Your task to perform on an android device: Go to CNN.com Image 0: 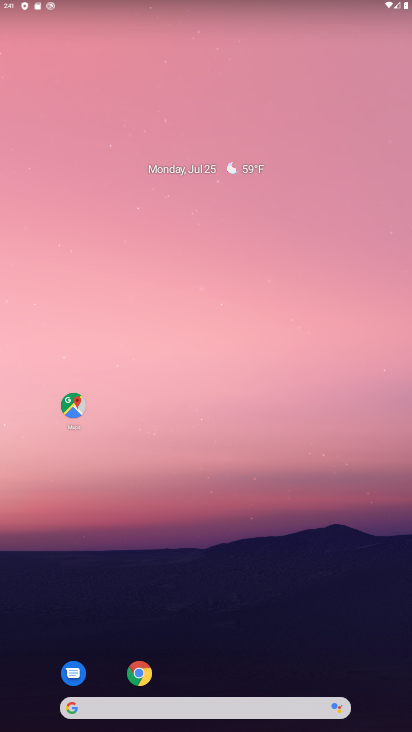
Step 0: click (146, 670)
Your task to perform on an android device: Go to CNN.com Image 1: 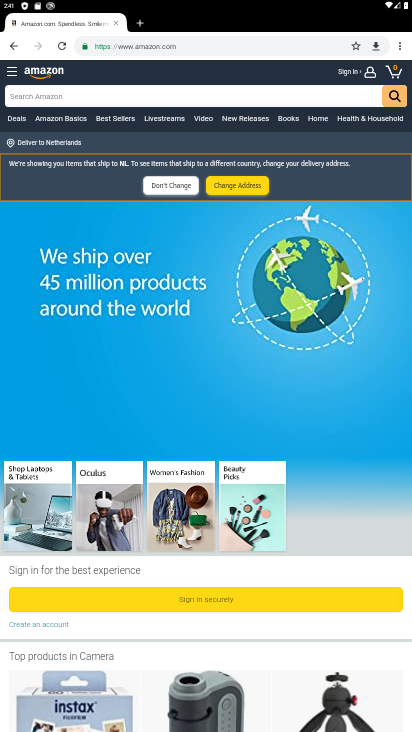
Step 1: click (156, 37)
Your task to perform on an android device: Go to CNN.com Image 2: 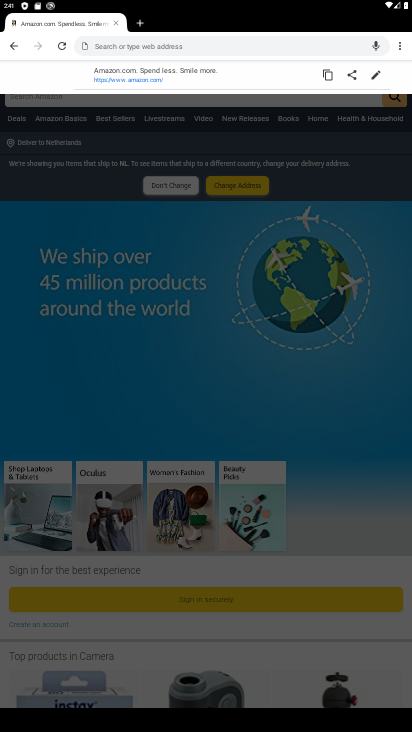
Step 2: type "www.cnn.com"
Your task to perform on an android device: Go to CNN.com Image 3: 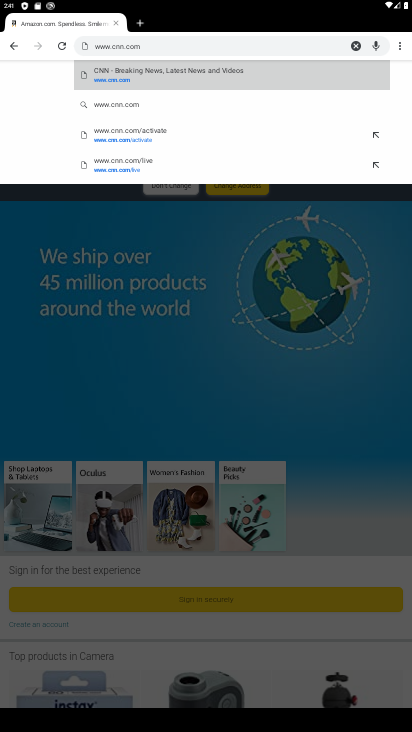
Step 3: click (129, 70)
Your task to perform on an android device: Go to CNN.com Image 4: 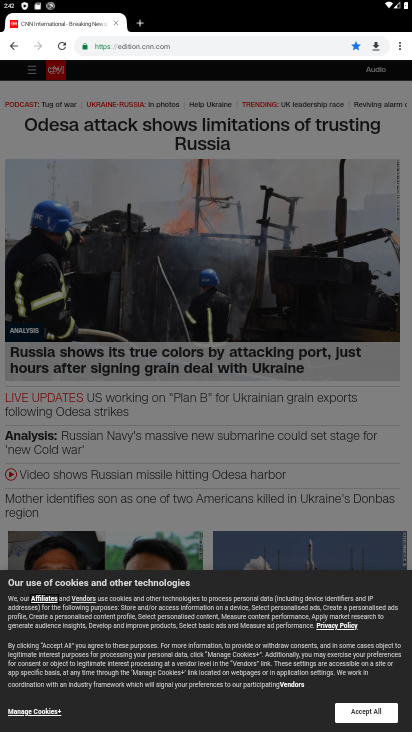
Step 4: task complete